Your task to perform on an android device: see sites visited before in the chrome app Image 0: 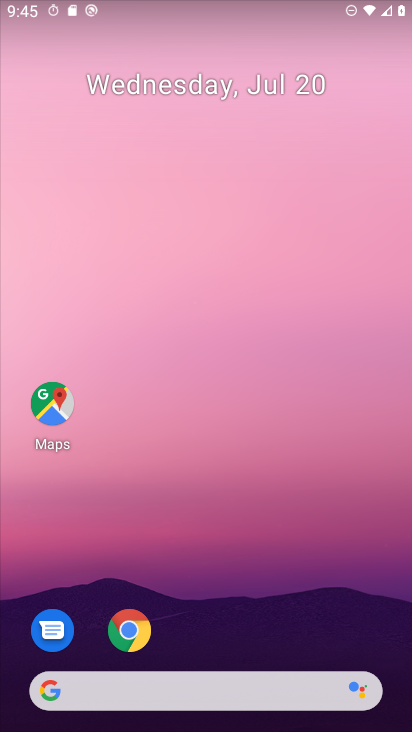
Step 0: drag from (178, 633) to (192, 240)
Your task to perform on an android device: see sites visited before in the chrome app Image 1: 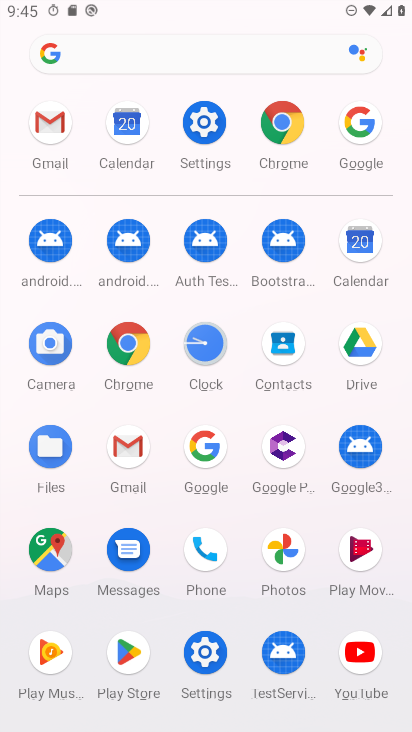
Step 1: click (270, 143)
Your task to perform on an android device: see sites visited before in the chrome app Image 2: 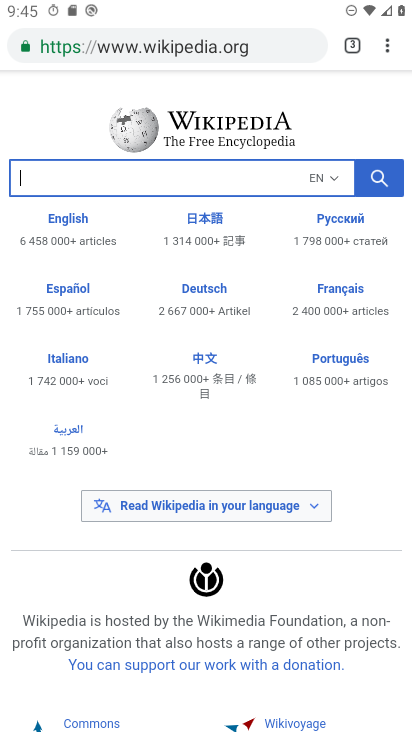
Step 2: click (389, 54)
Your task to perform on an android device: see sites visited before in the chrome app Image 3: 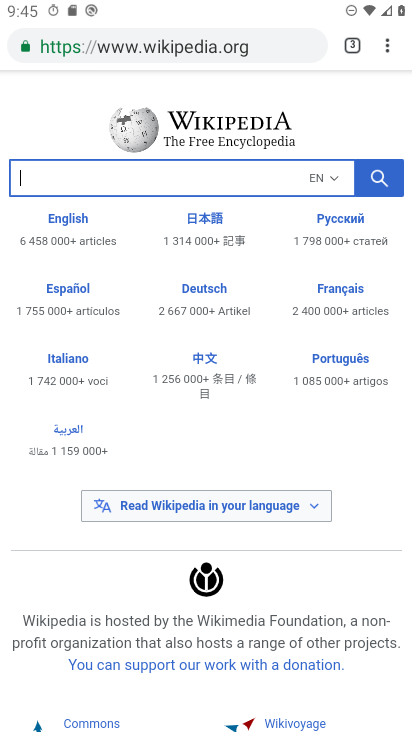
Step 3: click (389, 57)
Your task to perform on an android device: see sites visited before in the chrome app Image 4: 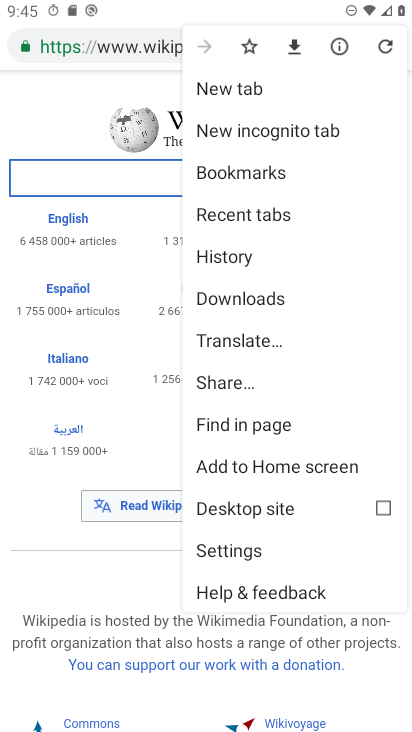
Step 4: click (240, 259)
Your task to perform on an android device: see sites visited before in the chrome app Image 5: 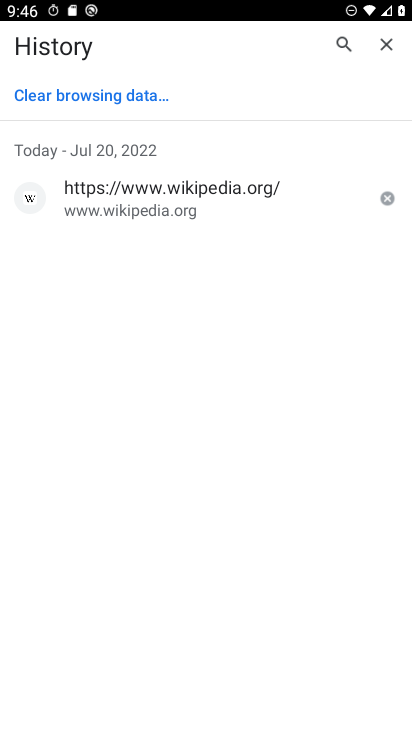
Step 5: task complete